Your task to perform on an android device: open device folders in google photos Image 0: 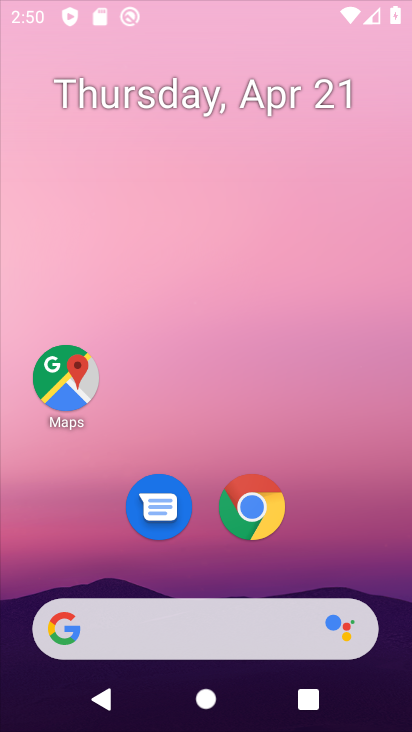
Step 0: click (323, 146)
Your task to perform on an android device: open device folders in google photos Image 1: 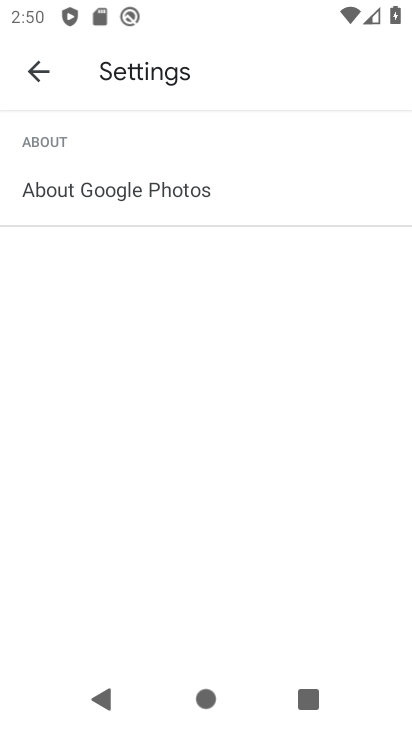
Step 1: press home button
Your task to perform on an android device: open device folders in google photos Image 2: 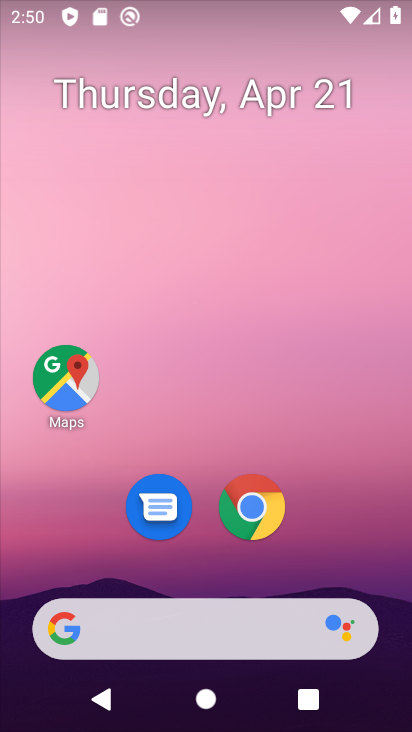
Step 2: drag from (312, 566) to (312, 187)
Your task to perform on an android device: open device folders in google photos Image 3: 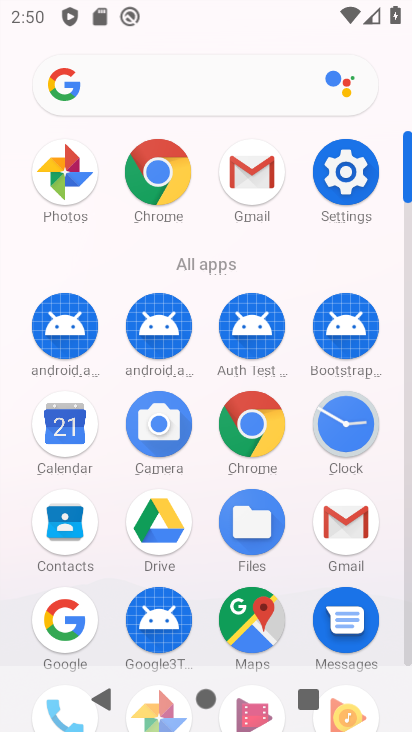
Step 3: drag from (206, 603) to (202, 341)
Your task to perform on an android device: open device folders in google photos Image 4: 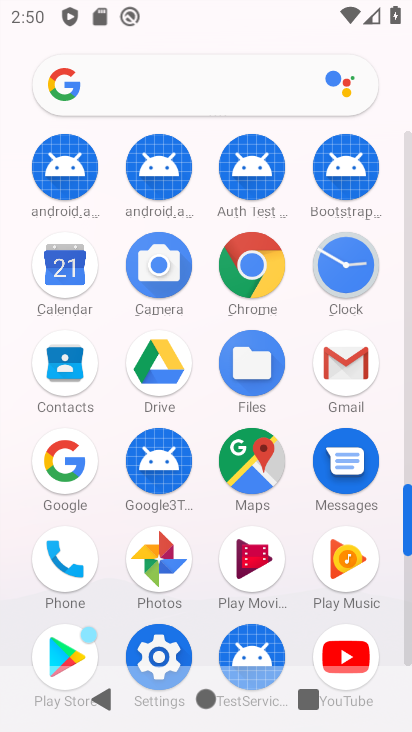
Step 4: click (169, 559)
Your task to perform on an android device: open device folders in google photos Image 5: 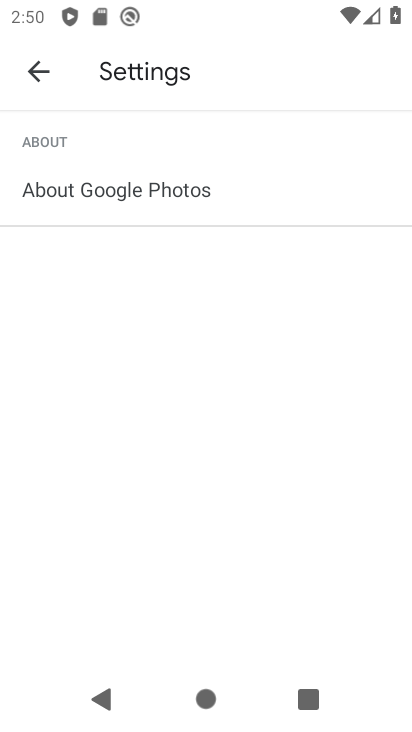
Step 5: press back button
Your task to perform on an android device: open device folders in google photos Image 6: 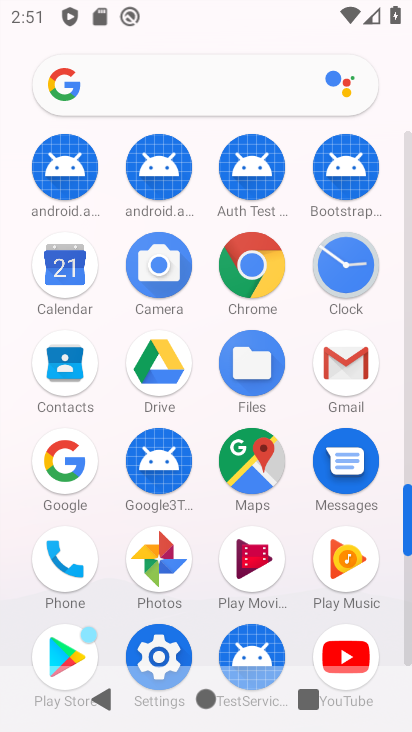
Step 6: click (150, 550)
Your task to perform on an android device: open device folders in google photos Image 7: 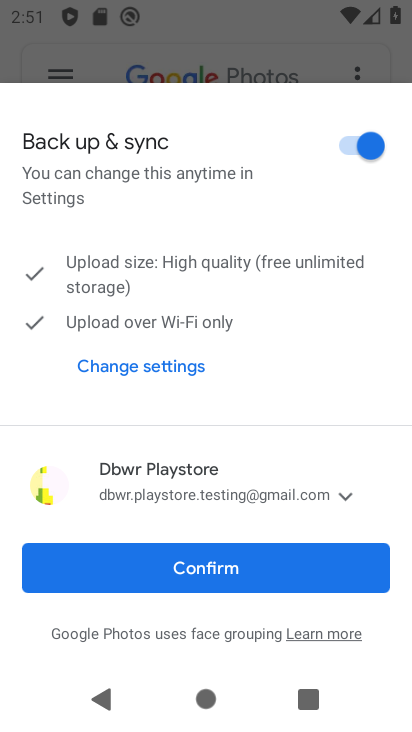
Step 7: click (228, 581)
Your task to perform on an android device: open device folders in google photos Image 8: 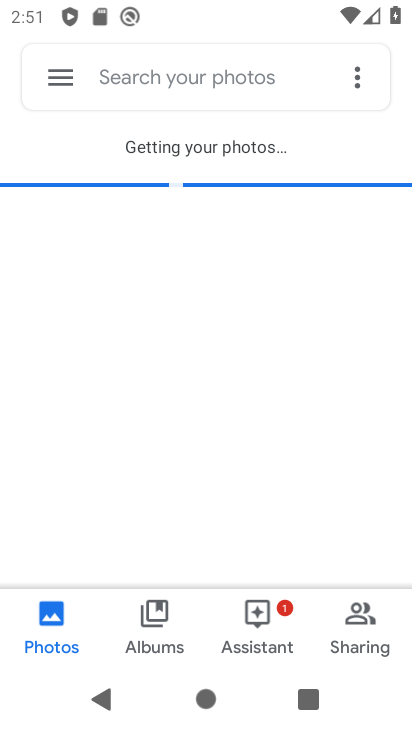
Step 8: click (207, 83)
Your task to perform on an android device: open device folders in google photos Image 9: 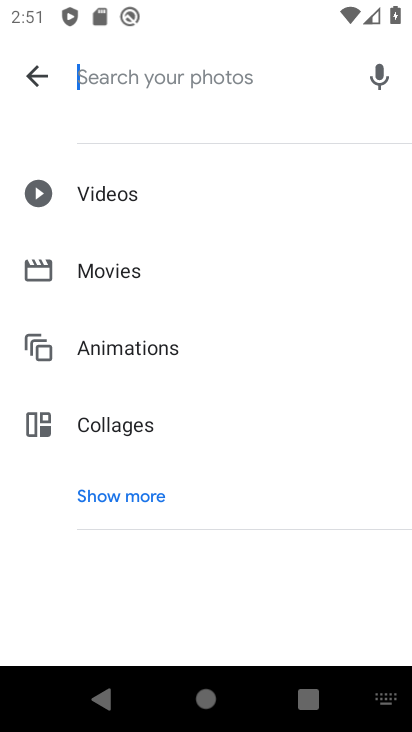
Step 9: type "device folders"
Your task to perform on an android device: open device folders in google photos Image 10: 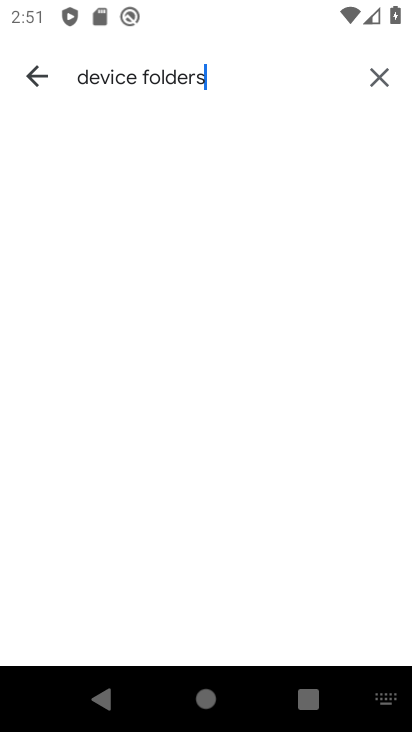
Step 10: task complete